Your task to perform on an android device: toggle pop-ups in chrome Image 0: 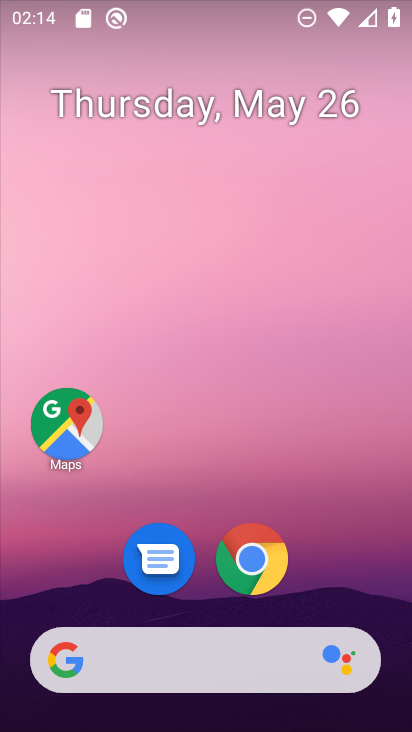
Step 0: press home button
Your task to perform on an android device: toggle pop-ups in chrome Image 1: 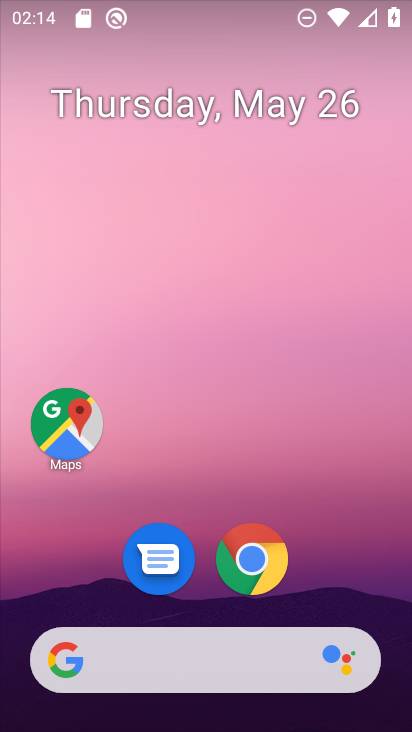
Step 1: drag from (158, 661) to (264, 208)
Your task to perform on an android device: toggle pop-ups in chrome Image 2: 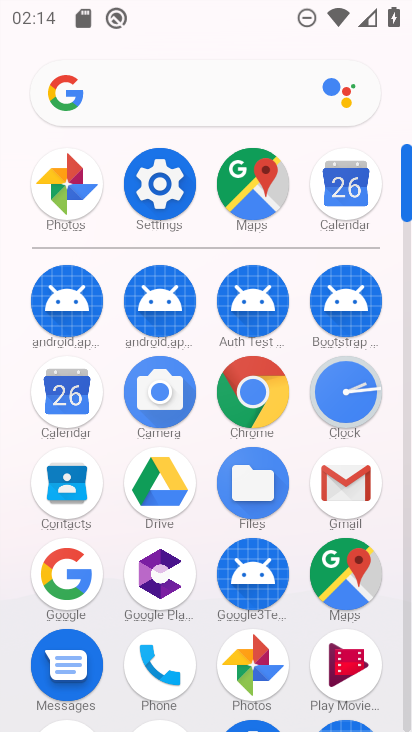
Step 2: click (249, 399)
Your task to perform on an android device: toggle pop-ups in chrome Image 3: 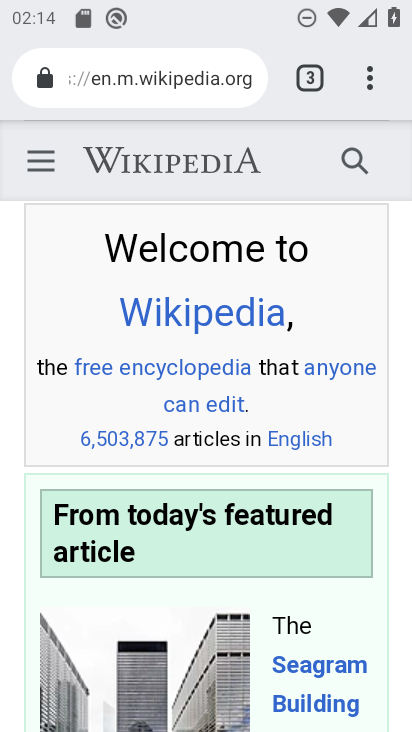
Step 3: drag from (372, 82) to (278, 621)
Your task to perform on an android device: toggle pop-ups in chrome Image 4: 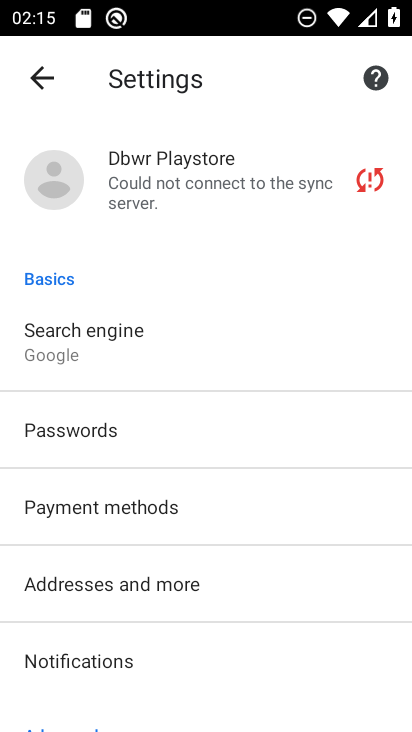
Step 4: drag from (180, 612) to (265, 210)
Your task to perform on an android device: toggle pop-ups in chrome Image 5: 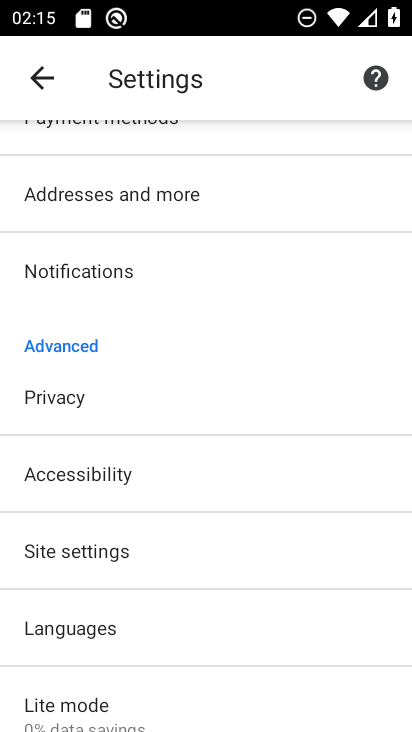
Step 5: click (115, 553)
Your task to perform on an android device: toggle pop-ups in chrome Image 6: 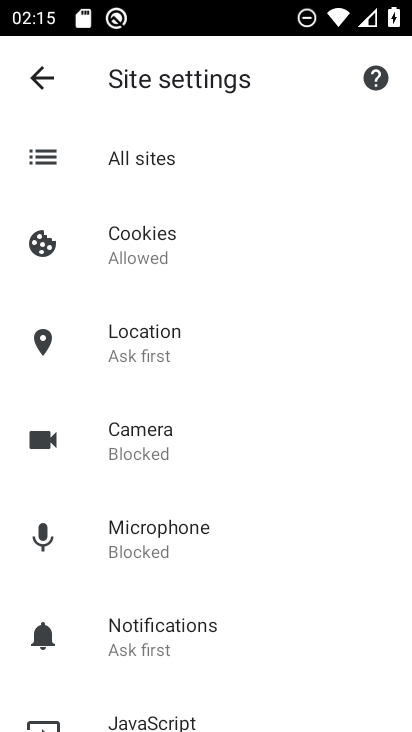
Step 6: drag from (177, 693) to (254, 207)
Your task to perform on an android device: toggle pop-ups in chrome Image 7: 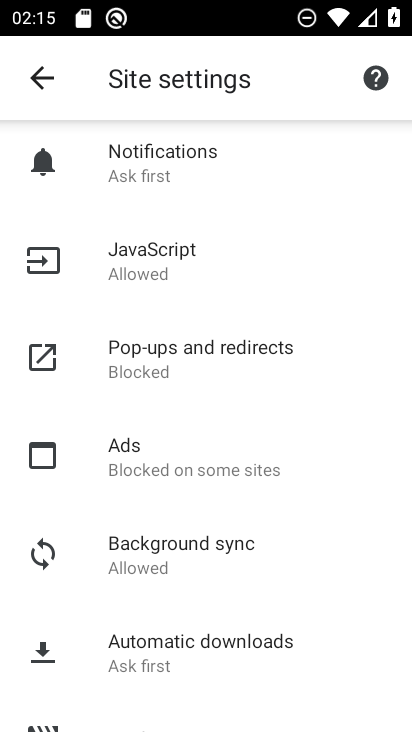
Step 7: click (194, 363)
Your task to perform on an android device: toggle pop-ups in chrome Image 8: 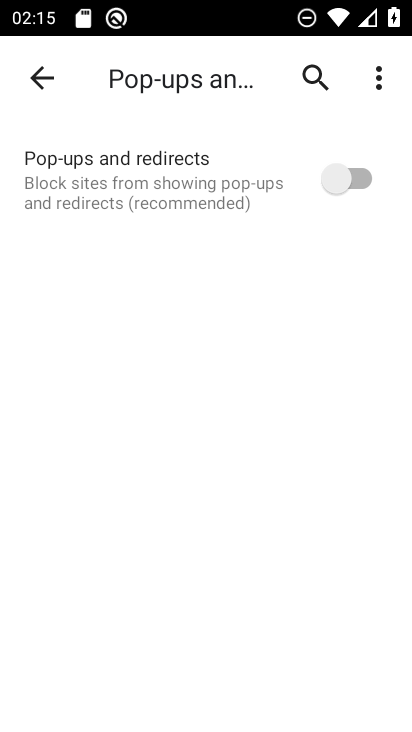
Step 8: click (359, 179)
Your task to perform on an android device: toggle pop-ups in chrome Image 9: 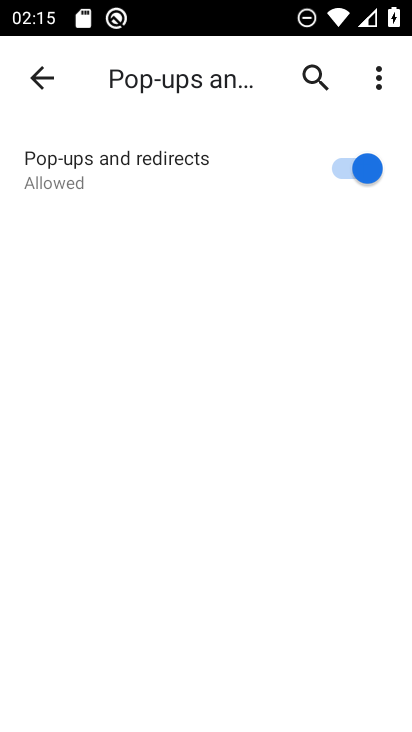
Step 9: task complete